Your task to perform on an android device: open app "Spotify" (install if not already installed) Image 0: 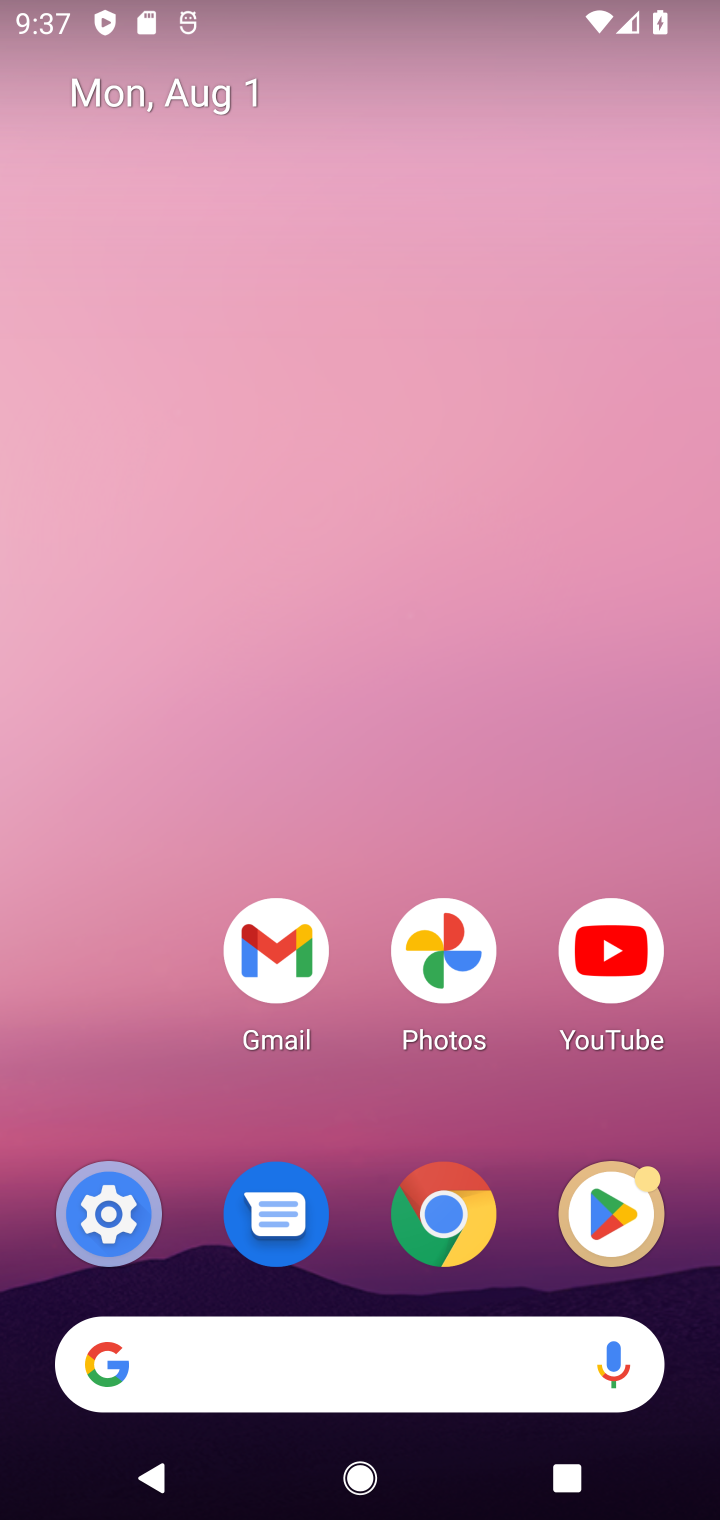
Step 0: click (605, 1217)
Your task to perform on an android device: open app "Spotify" (install if not already installed) Image 1: 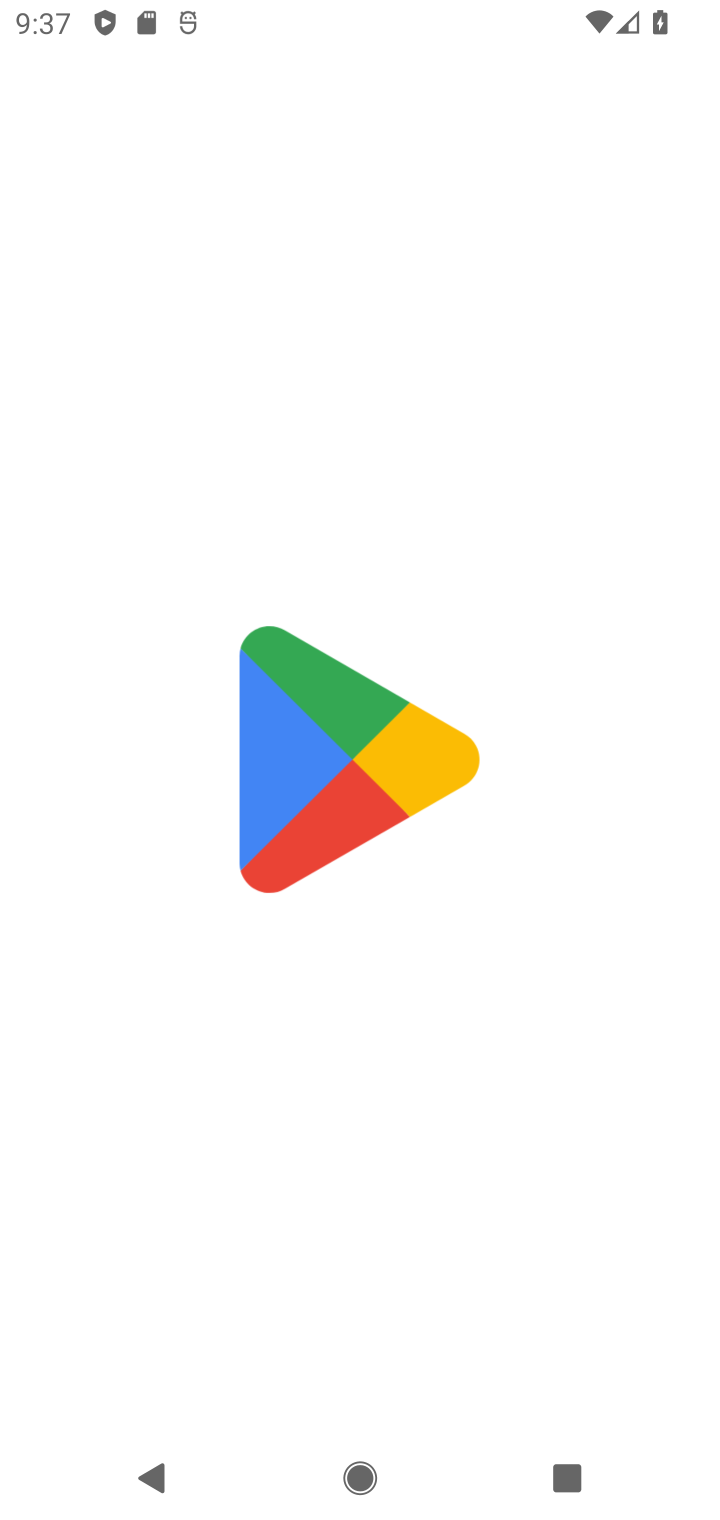
Step 1: press home button
Your task to perform on an android device: open app "Spotify" (install if not already installed) Image 2: 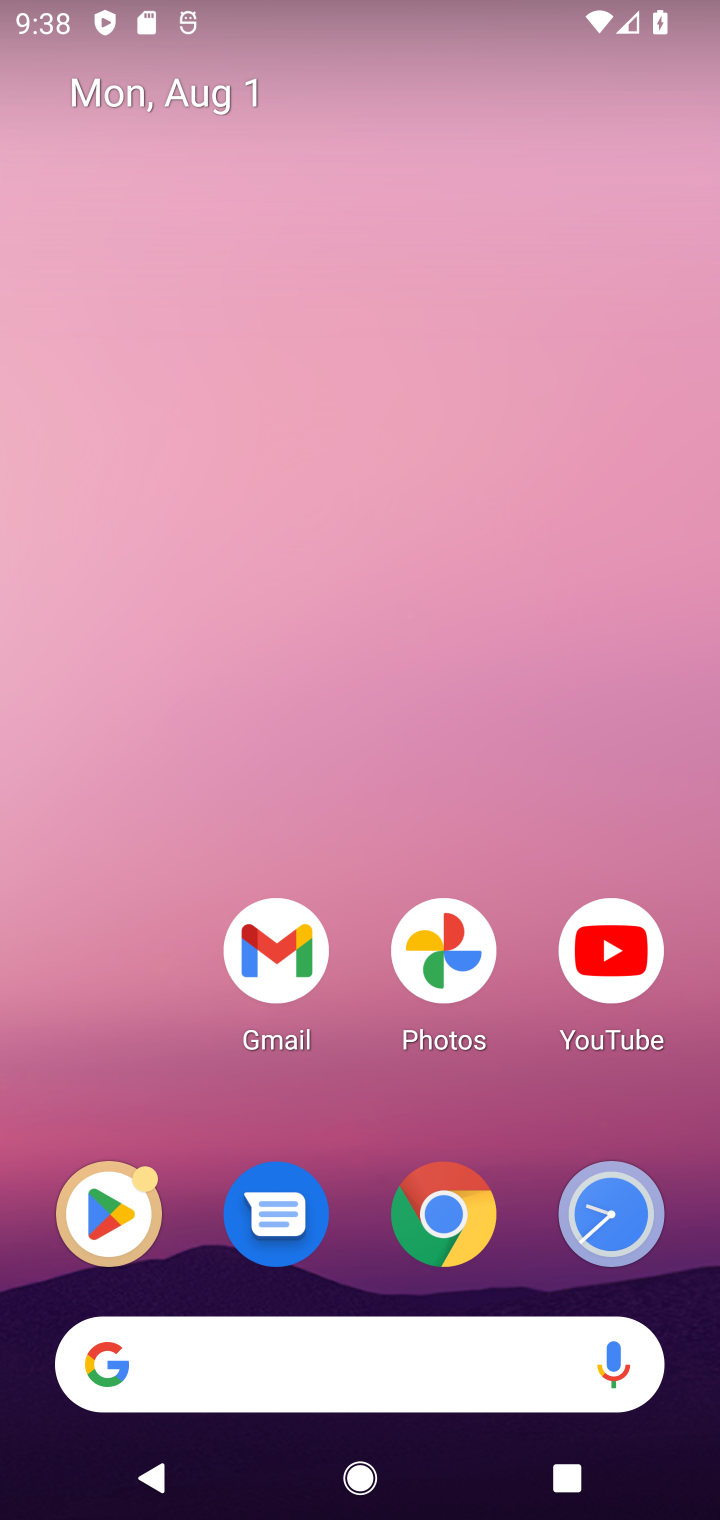
Step 2: click (93, 1204)
Your task to perform on an android device: open app "Spotify" (install if not already installed) Image 3: 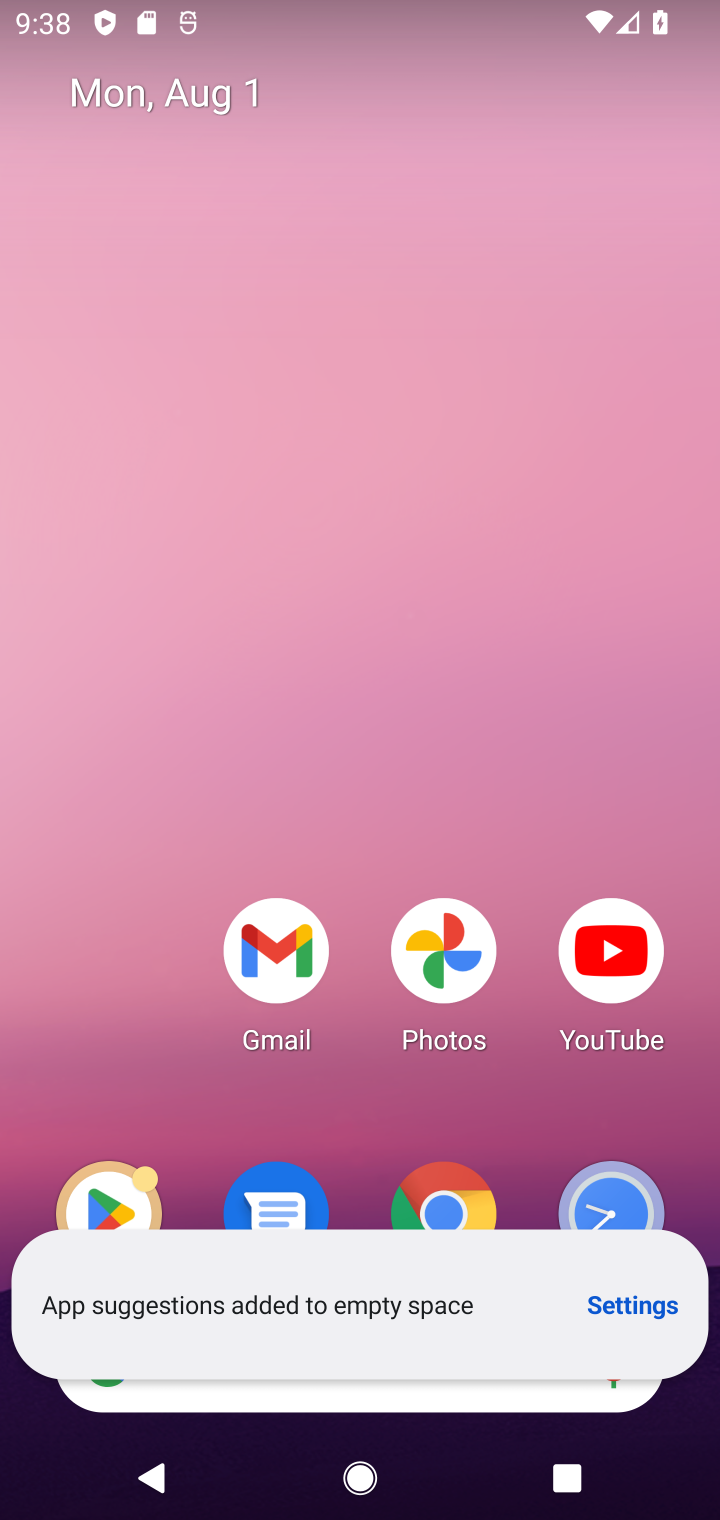
Step 3: click (109, 1214)
Your task to perform on an android device: open app "Spotify" (install if not already installed) Image 4: 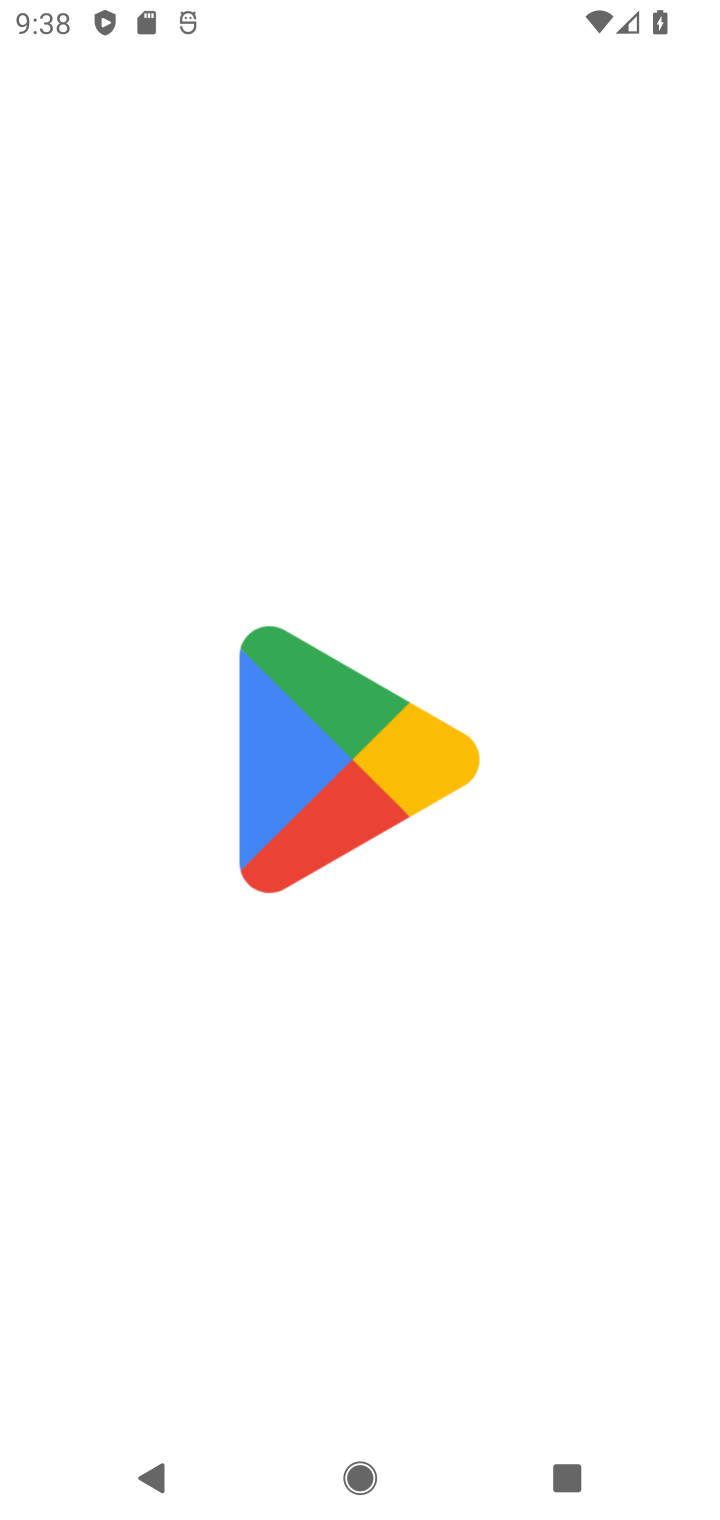
Step 4: click (109, 1214)
Your task to perform on an android device: open app "Spotify" (install if not already installed) Image 5: 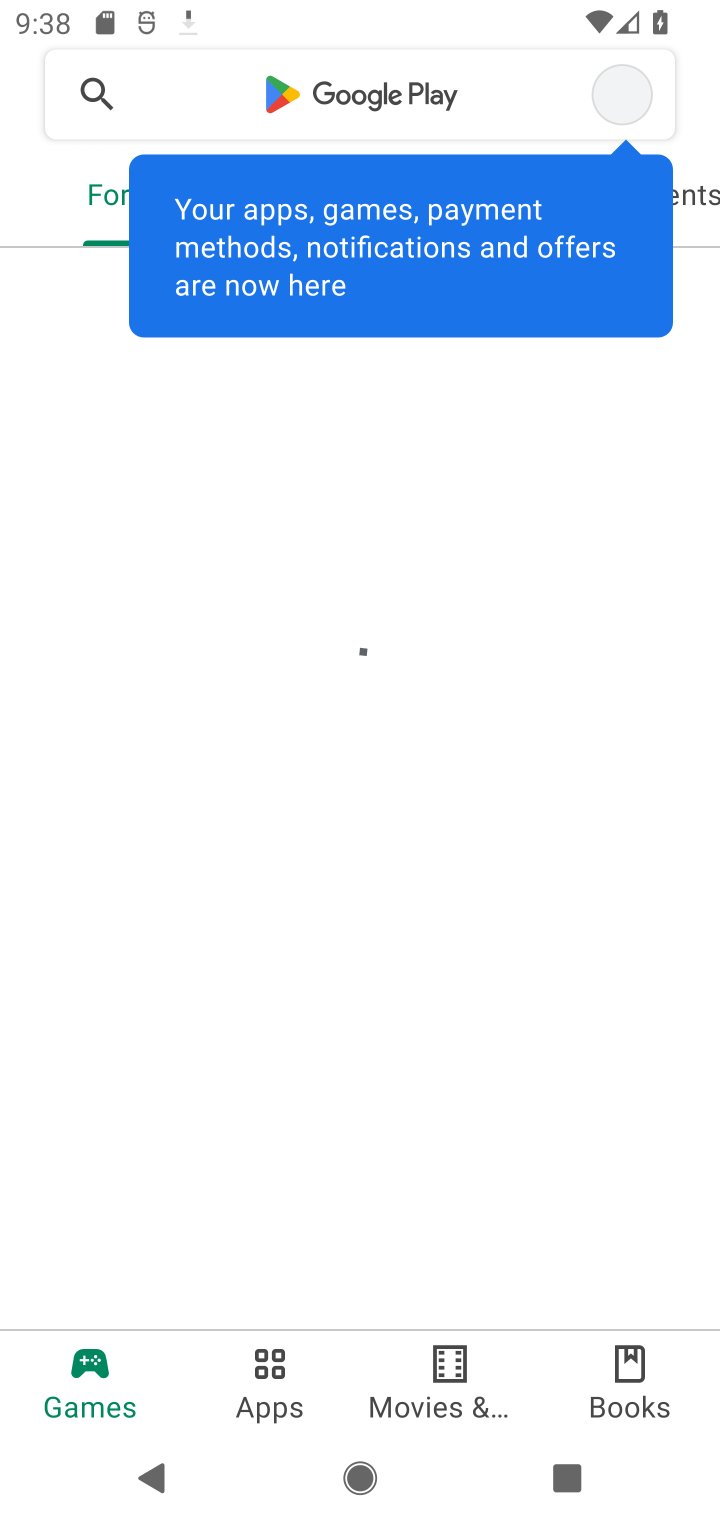
Step 5: click (368, 89)
Your task to perform on an android device: open app "Spotify" (install if not already installed) Image 6: 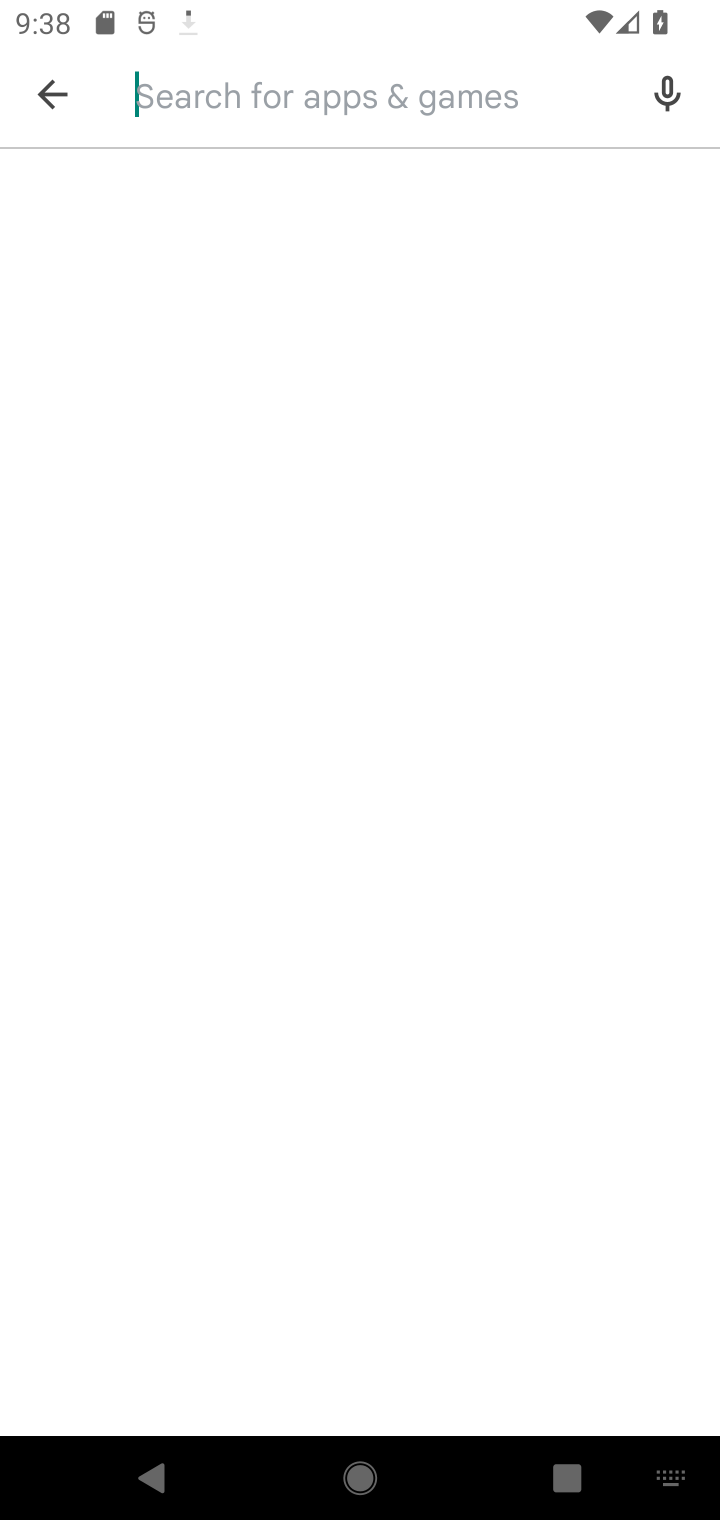
Step 6: type "Spotify"
Your task to perform on an android device: open app "Spotify" (install if not already installed) Image 7: 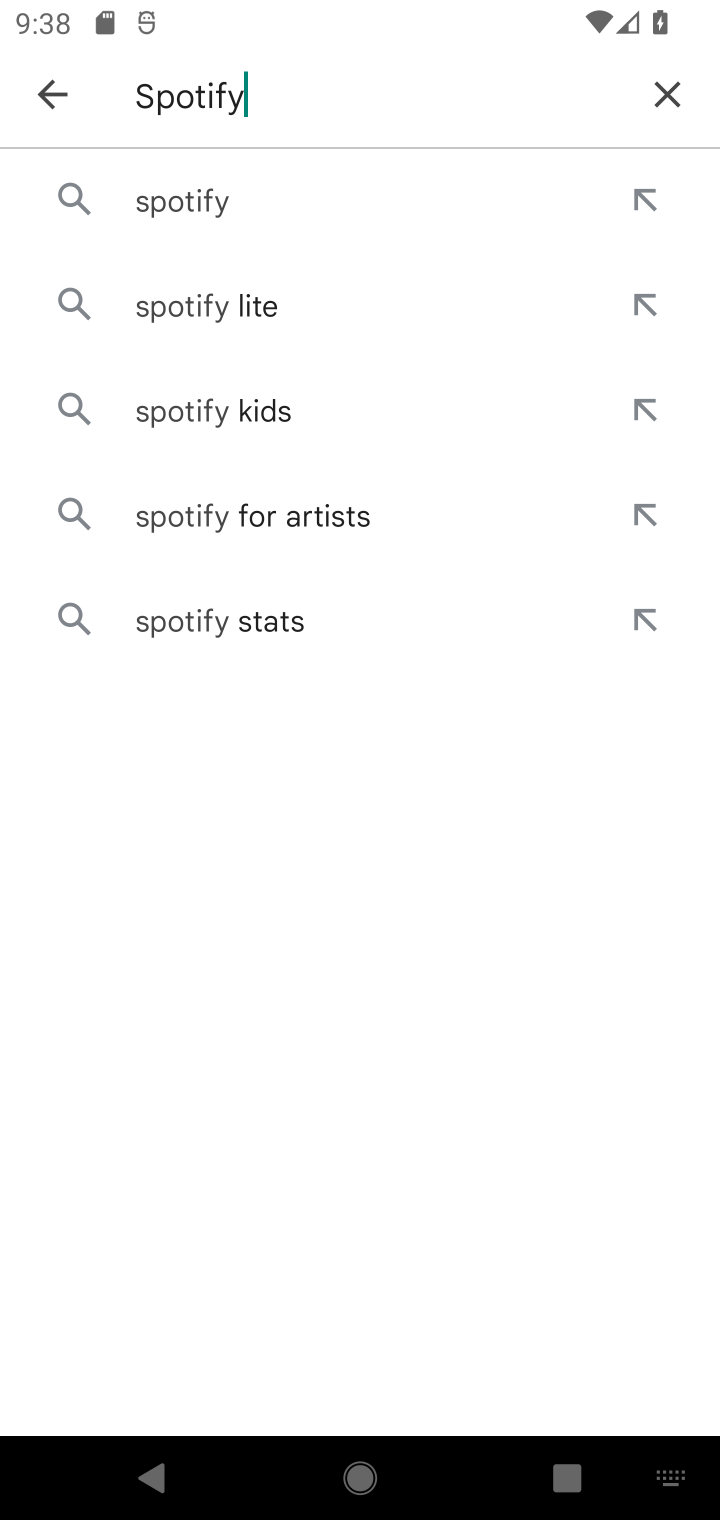
Step 7: click (184, 198)
Your task to perform on an android device: open app "Spotify" (install if not already installed) Image 8: 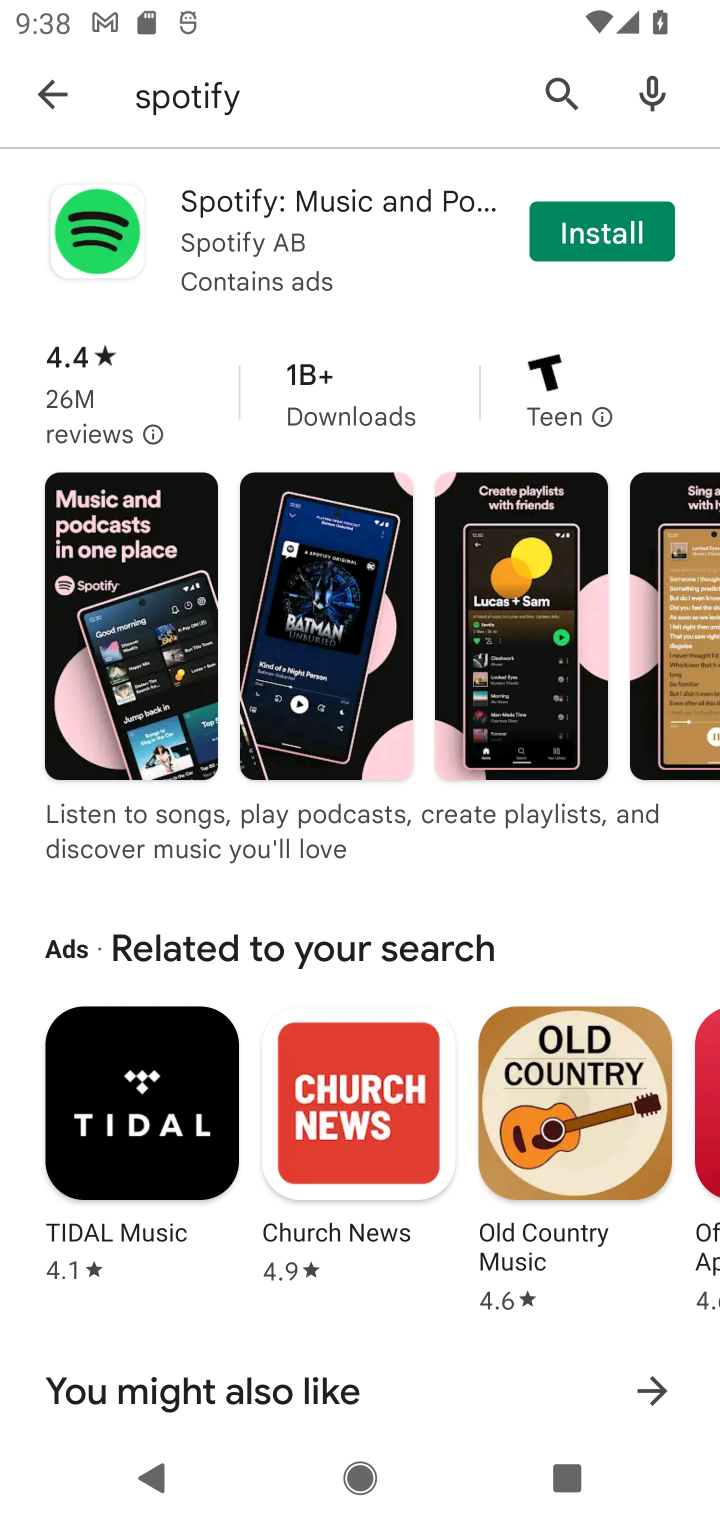
Step 8: click (624, 237)
Your task to perform on an android device: open app "Spotify" (install if not already installed) Image 9: 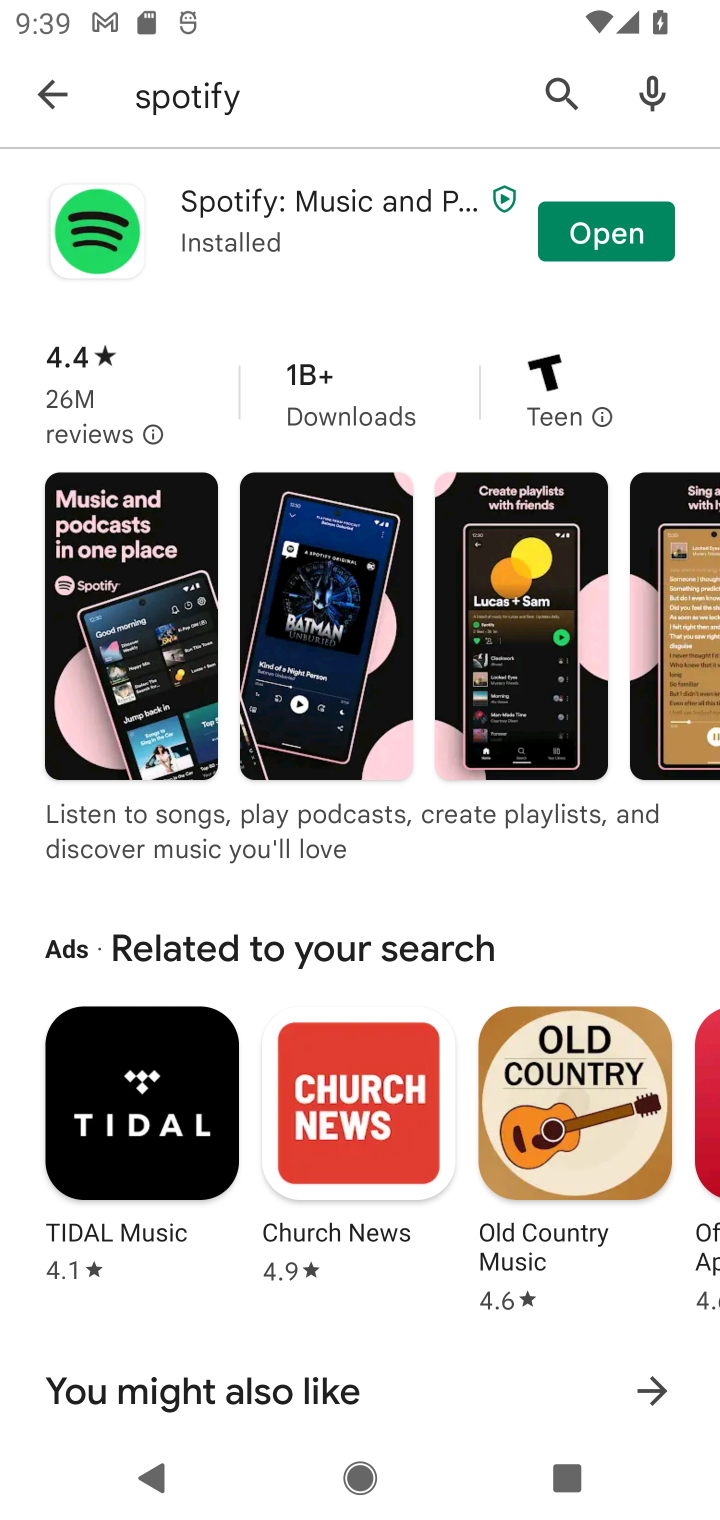
Step 9: click (608, 256)
Your task to perform on an android device: open app "Spotify" (install if not already installed) Image 10: 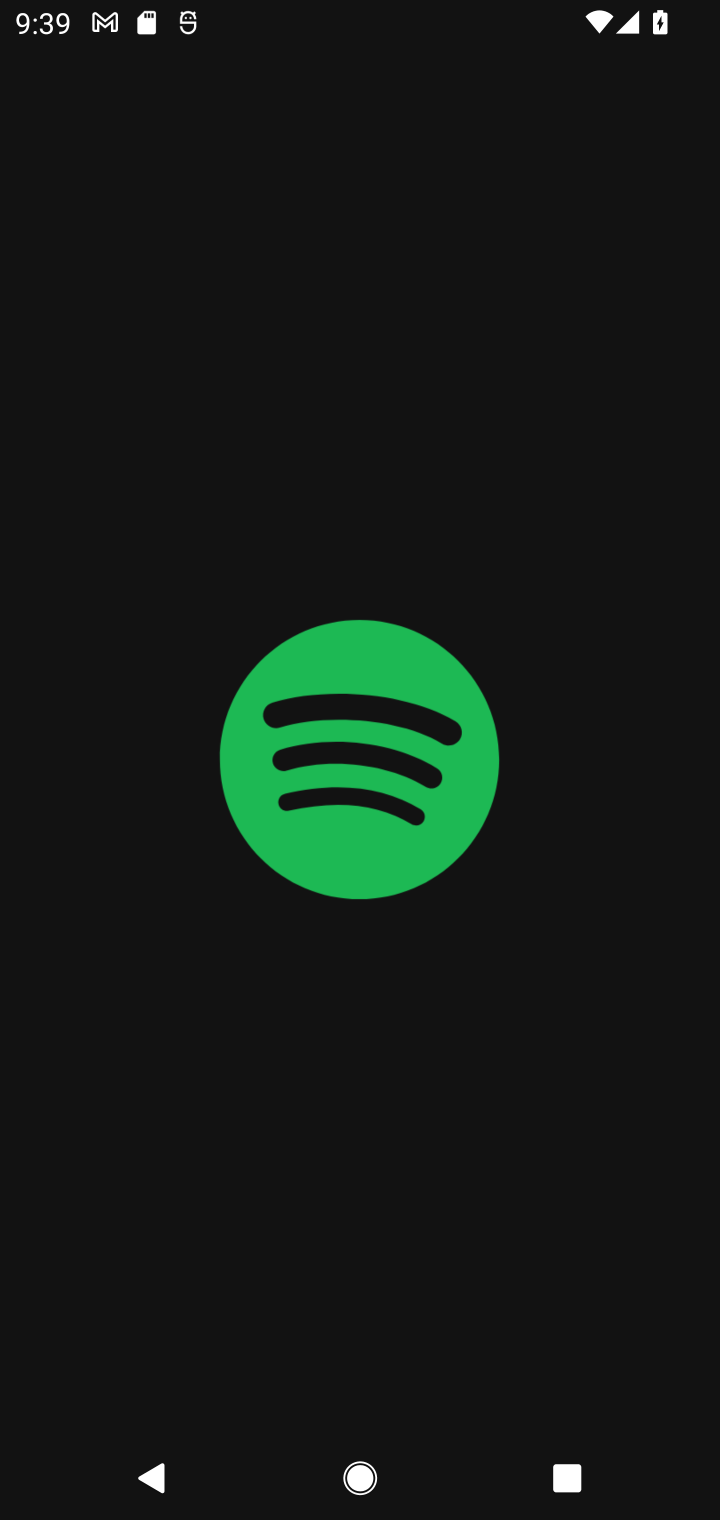
Step 10: task complete